Your task to perform on an android device: Open calendar and show me the second week of next month Image 0: 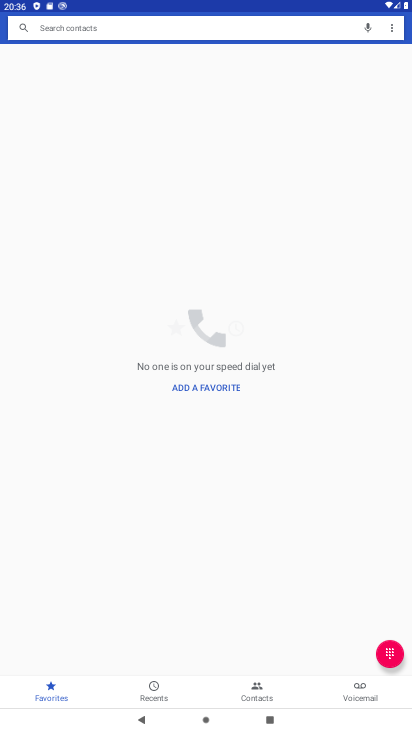
Step 0: press home button
Your task to perform on an android device: Open calendar and show me the second week of next month Image 1: 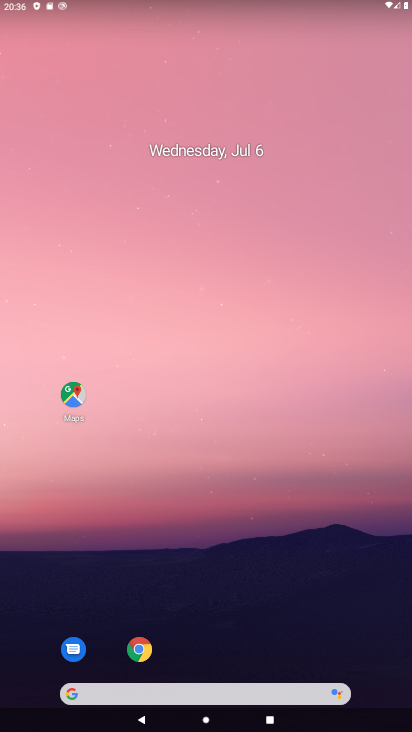
Step 1: drag from (219, 679) to (389, 6)
Your task to perform on an android device: Open calendar and show me the second week of next month Image 2: 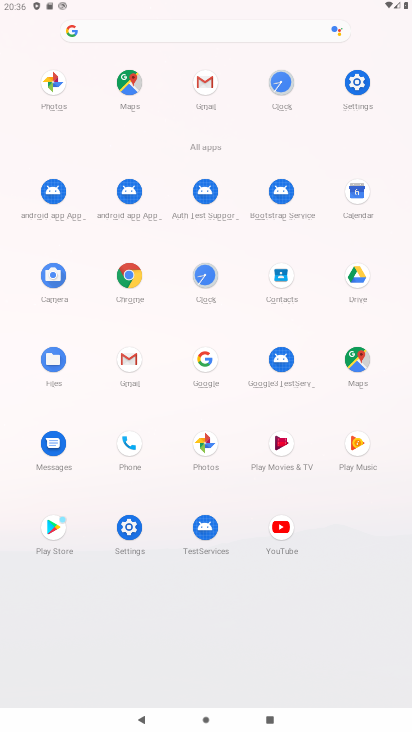
Step 2: click (359, 195)
Your task to perform on an android device: Open calendar and show me the second week of next month Image 3: 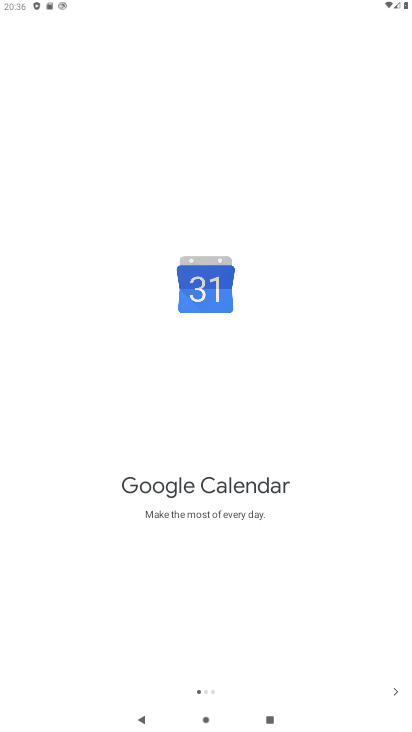
Step 3: click (391, 690)
Your task to perform on an android device: Open calendar and show me the second week of next month Image 4: 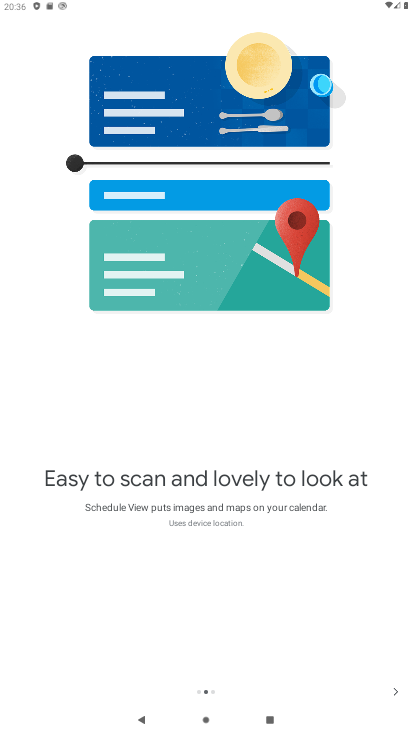
Step 4: click (392, 687)
Your task to perform on an android device: Open calendar and show me the second week of next month Image 5: 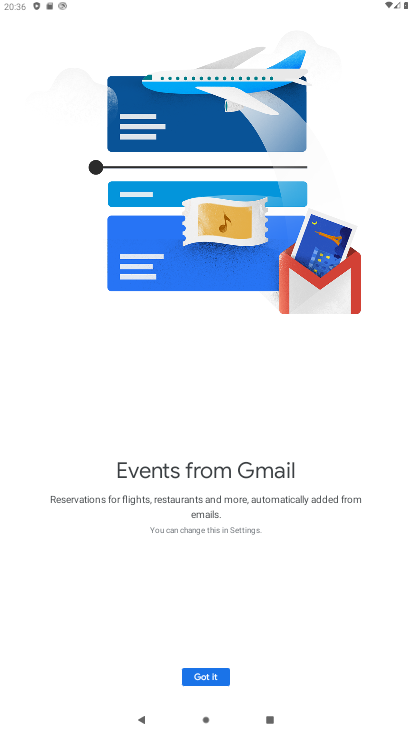
Step 5: click (209, 669)
Your task to perform on an android device: Open calendar and show me the second week of next month Image 6: 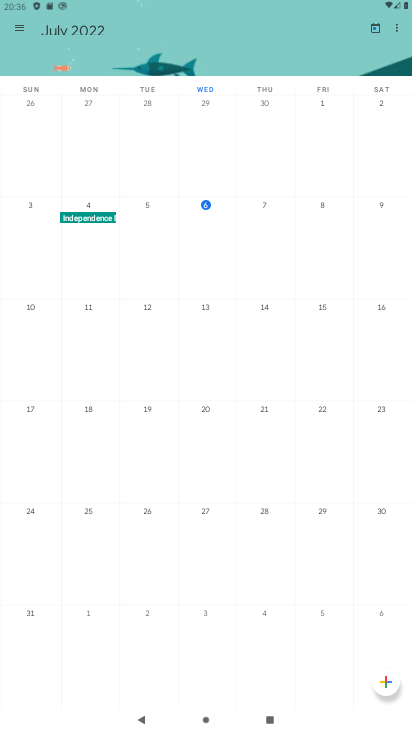
Step 6: drag from (364, 359) to (12, 468)
Your task to perform on an android device: Open calendar and show me the second week of next month Image 7: 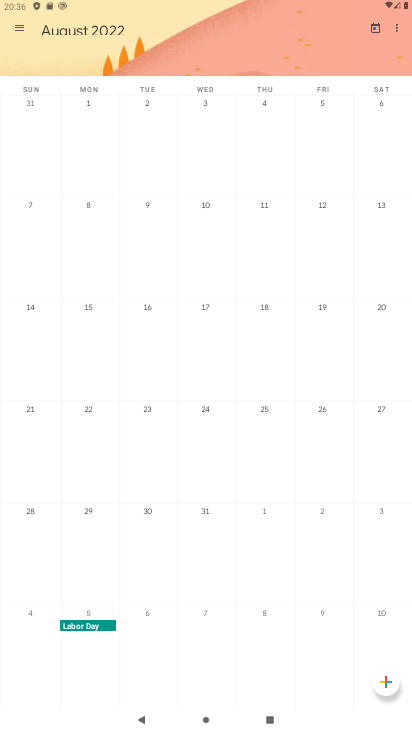
Step 7: click (33, 203)
Your task to perform on an android device: Open calendar and show me the second week of next month Image 8: 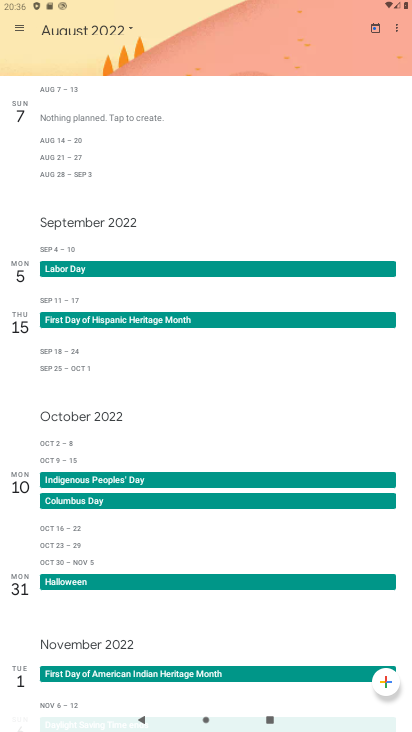
Step 8: click (21, 28)
Your task to perform on an android device: Open calendar and show me the second week of next month Image 9: 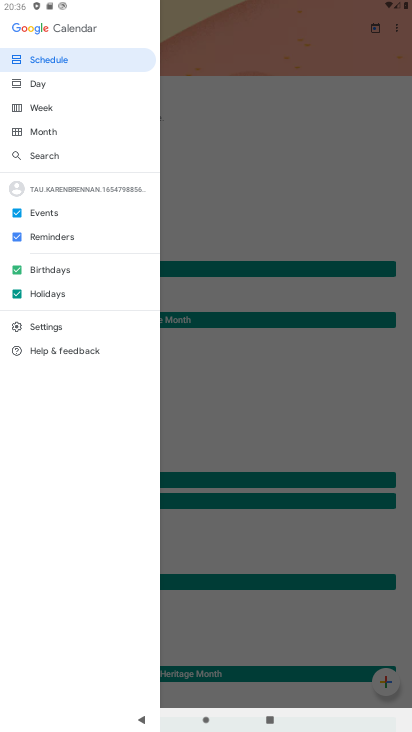
Step 9: click (46, 110)
Your task to perform on an android device: Open calendar and show me the second week of next month Image 10: 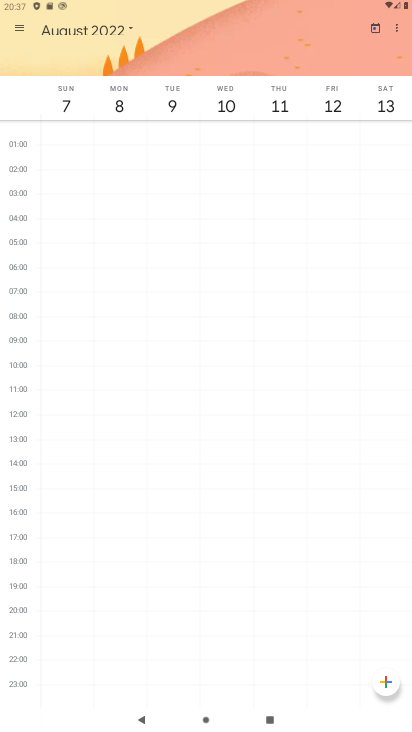
Step 10: task complete